Your task to perform on an android device: Play the last video I watched on Youtube Image 0: 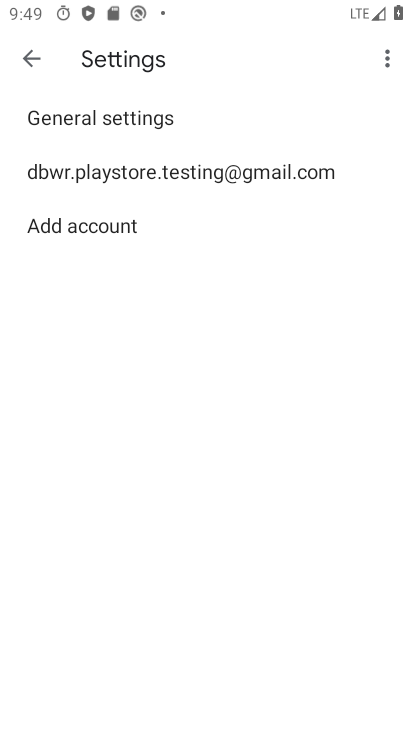
Step 0: press home button
Your task to perform on an android device: Play the last video I watched on Youtube Image 1: 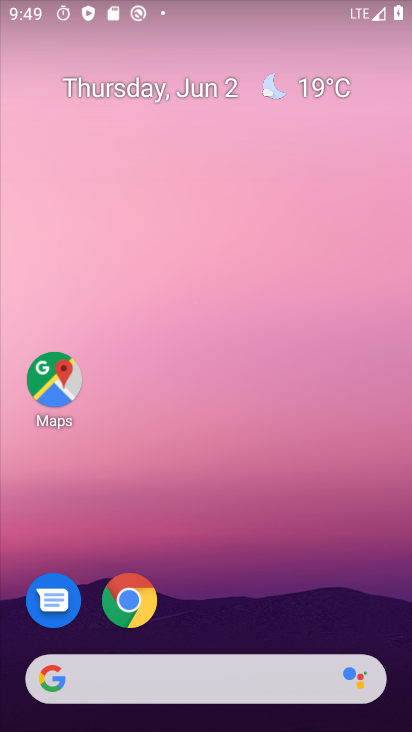
Step 1: drag from (214, 623) to (225, 185)
Your task to perform on an android device: Play the last video I watched on Youtube Image 2: 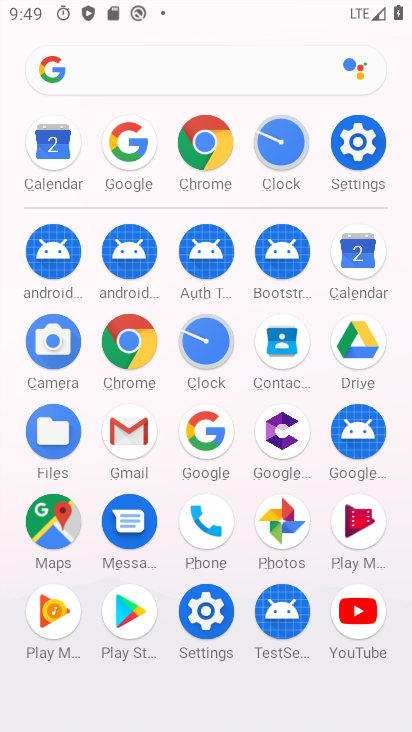
Step 2: click (347, 610)
Your task to perform on an android device: Play the last video I watched on Youtube Image 3: 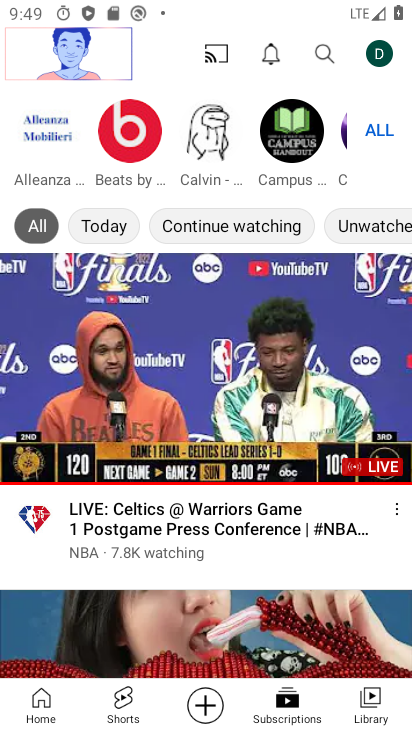
Step 3: click (371, 689)
Your task to perform on an android device: Play the last video I watched on Youtube Image 4: 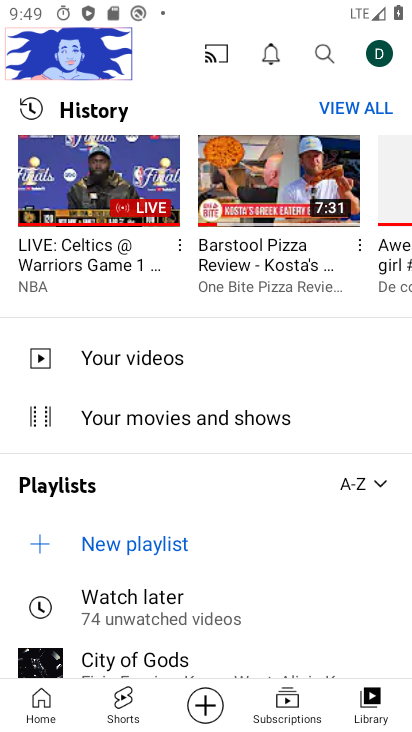
Step 4: click (94, 209)
Your task to perform on an android device: Play the last video I watched on Youtube Image 5: 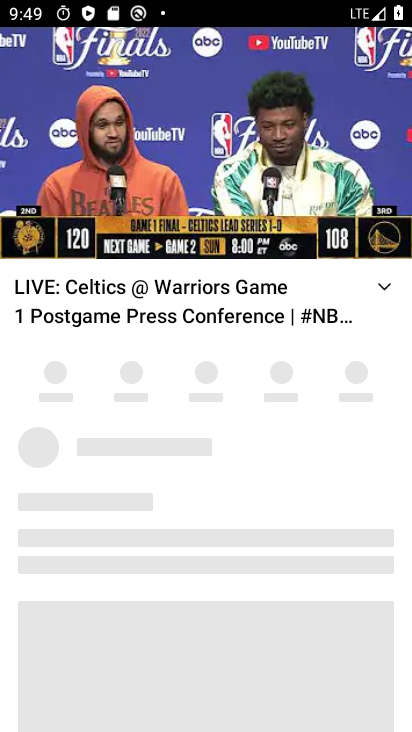
Step 5: task complete